Your task to perform on an android device: turn on translation in the chrome app Image 0: 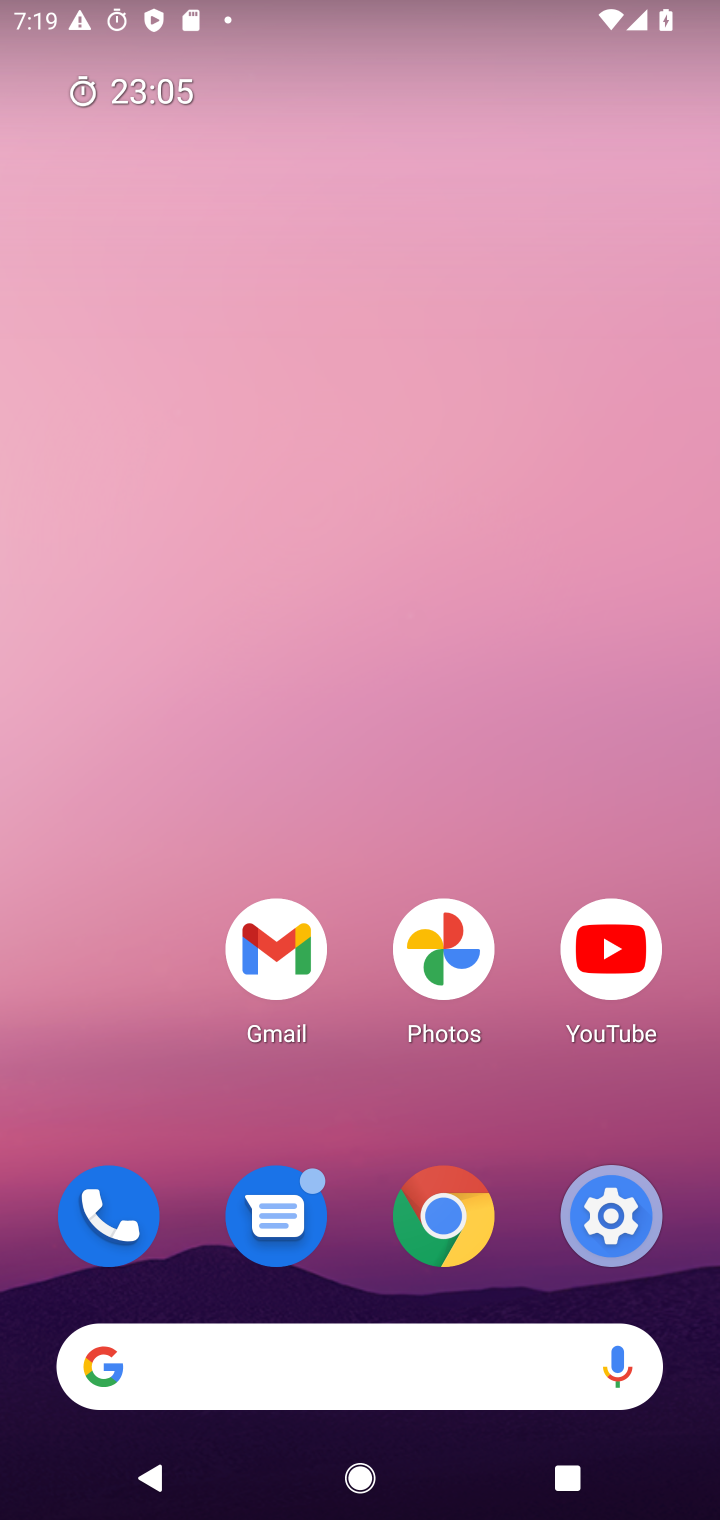
Step 0: drag from (515, 1253) to (519, 64)
Your task to perform on an android device: turn on translation in the chrome app Image 1: 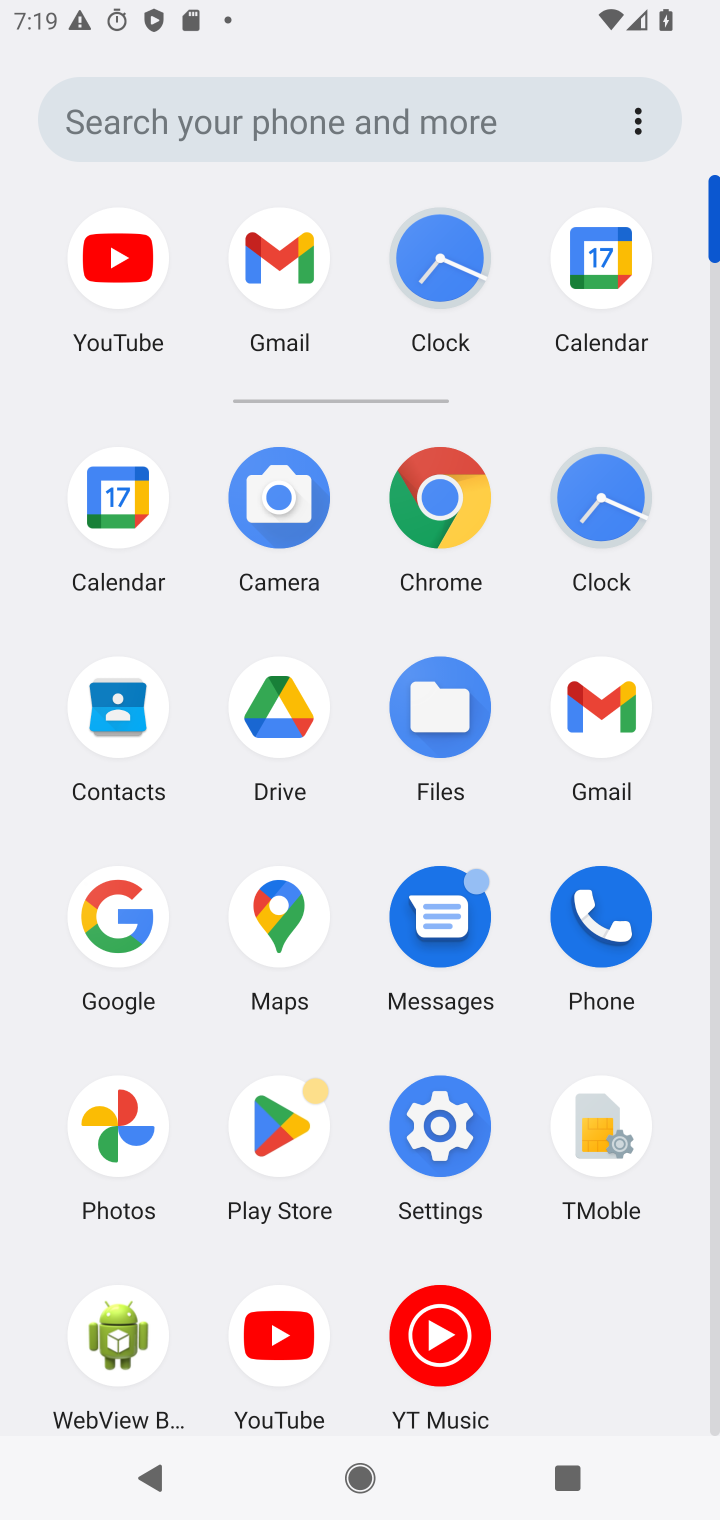
Step 1: click (457, 501)
Your task to perform on an android device: turn on translation in the chrome app Image 2: 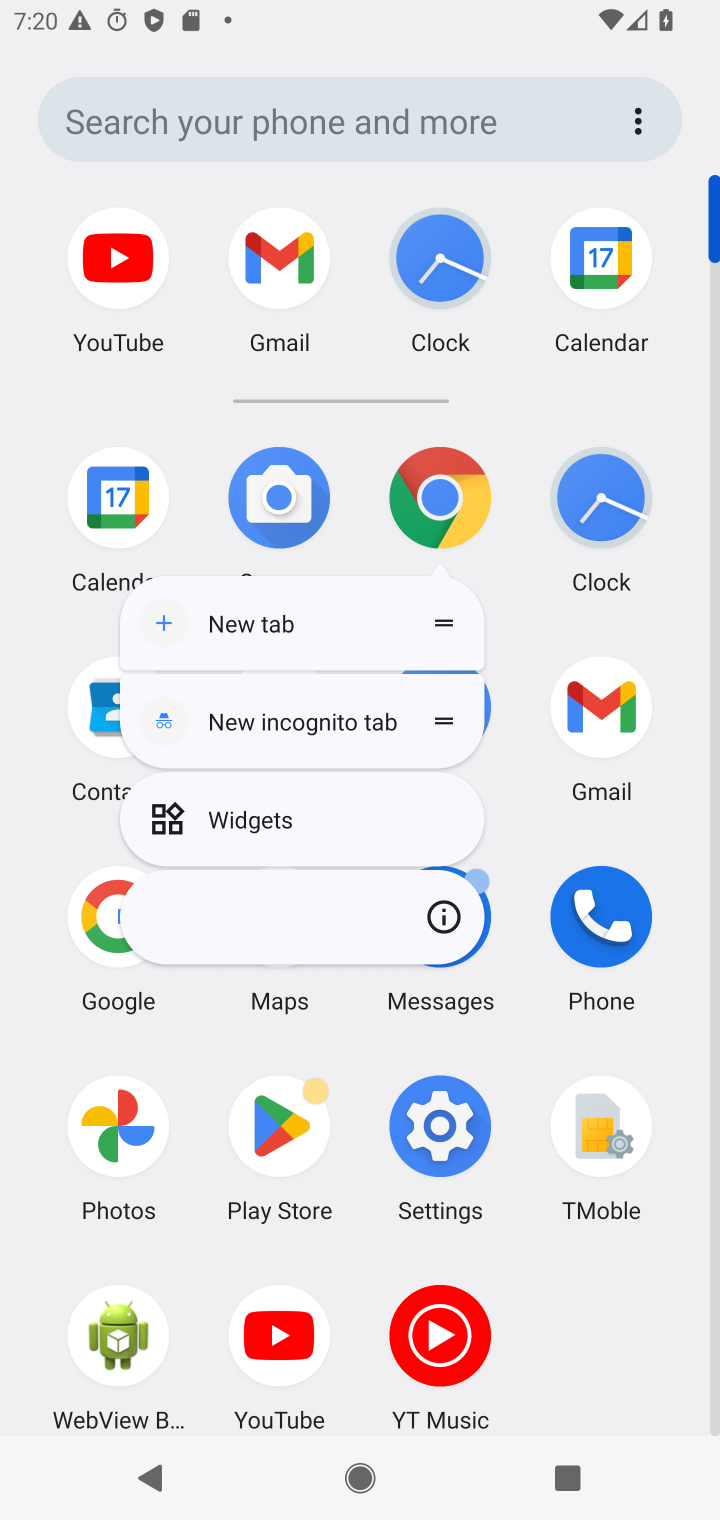
Step 2: click (439, 494)
Your task to perform on an android device: turn on translation in the chrome app Image 3: 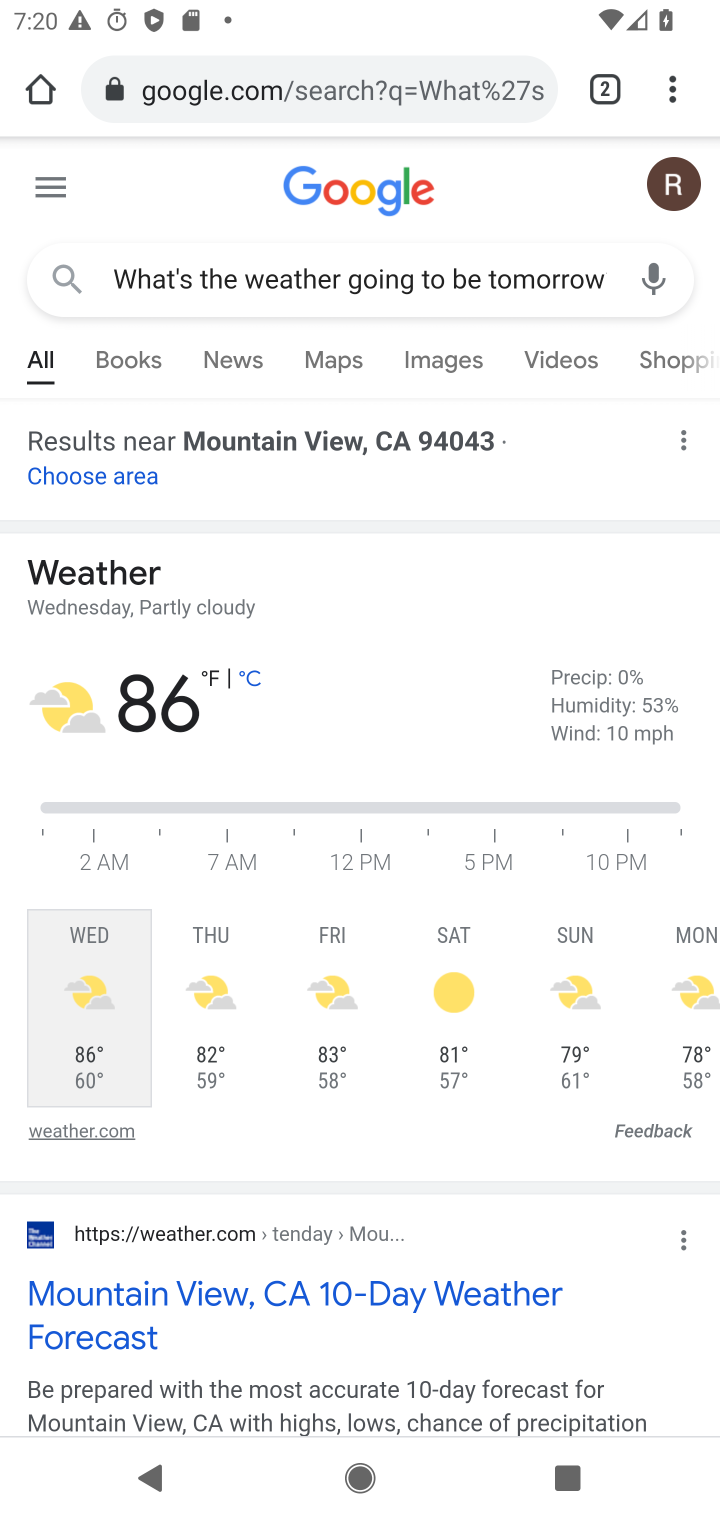
Step 3: drag from (667, 85) to (428, 1234)
Your task to perform on an android device: turn on translation in the chrome app Image 4: 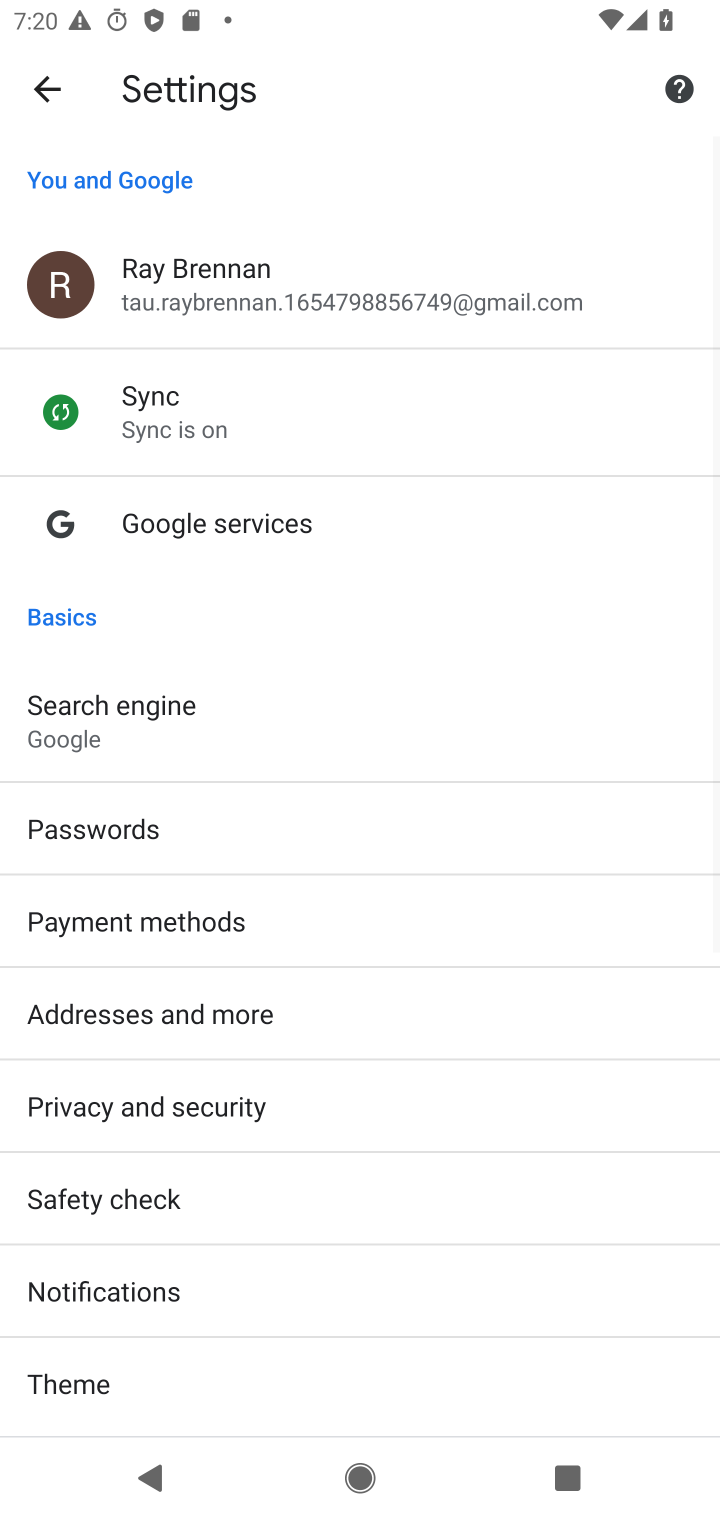
Step 4: drag from (195, 1201) to (339, 191)
Your task to perform on an android device: turn on translation in the chrome app Image 5: 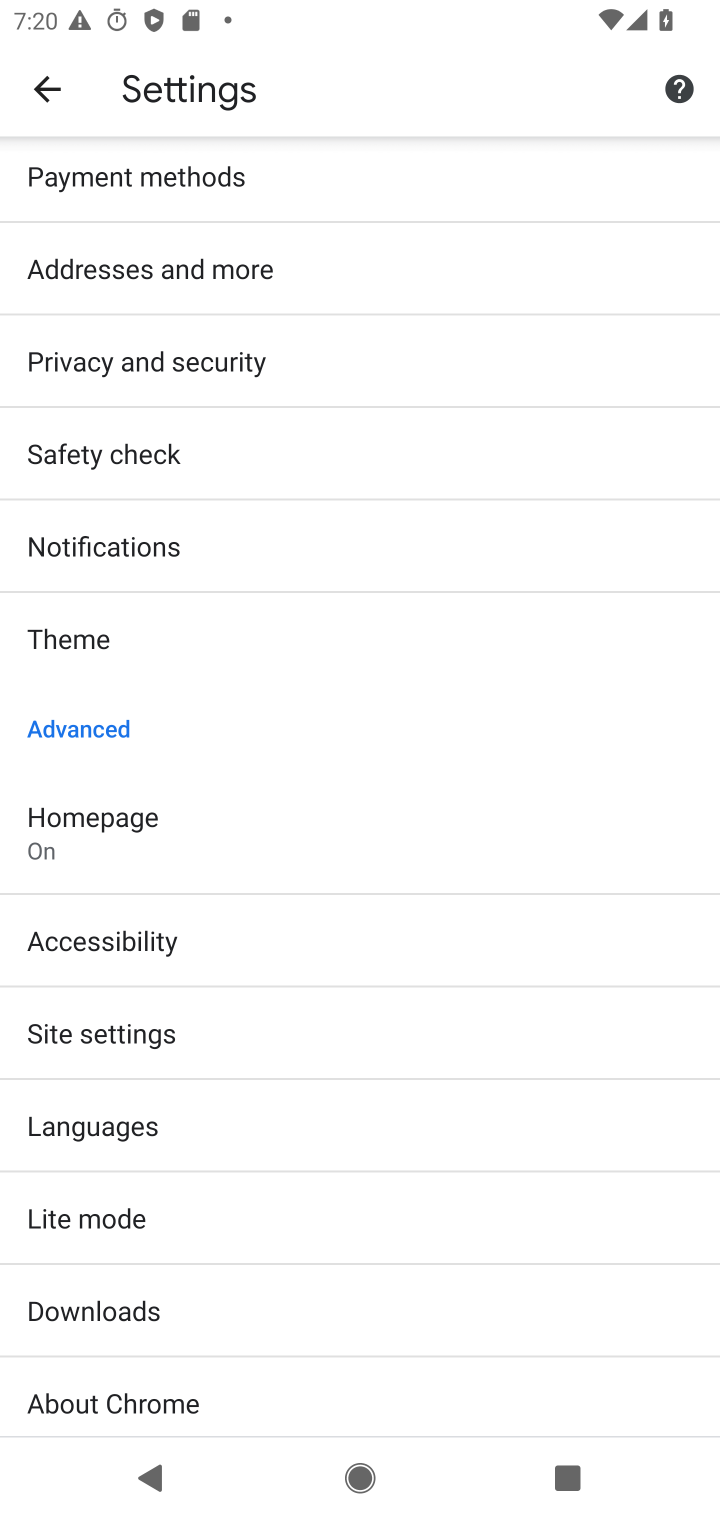
Step 5: click (133, 1123)
Your task to perform on an android device: turn on translation in the chrome app Image 6: 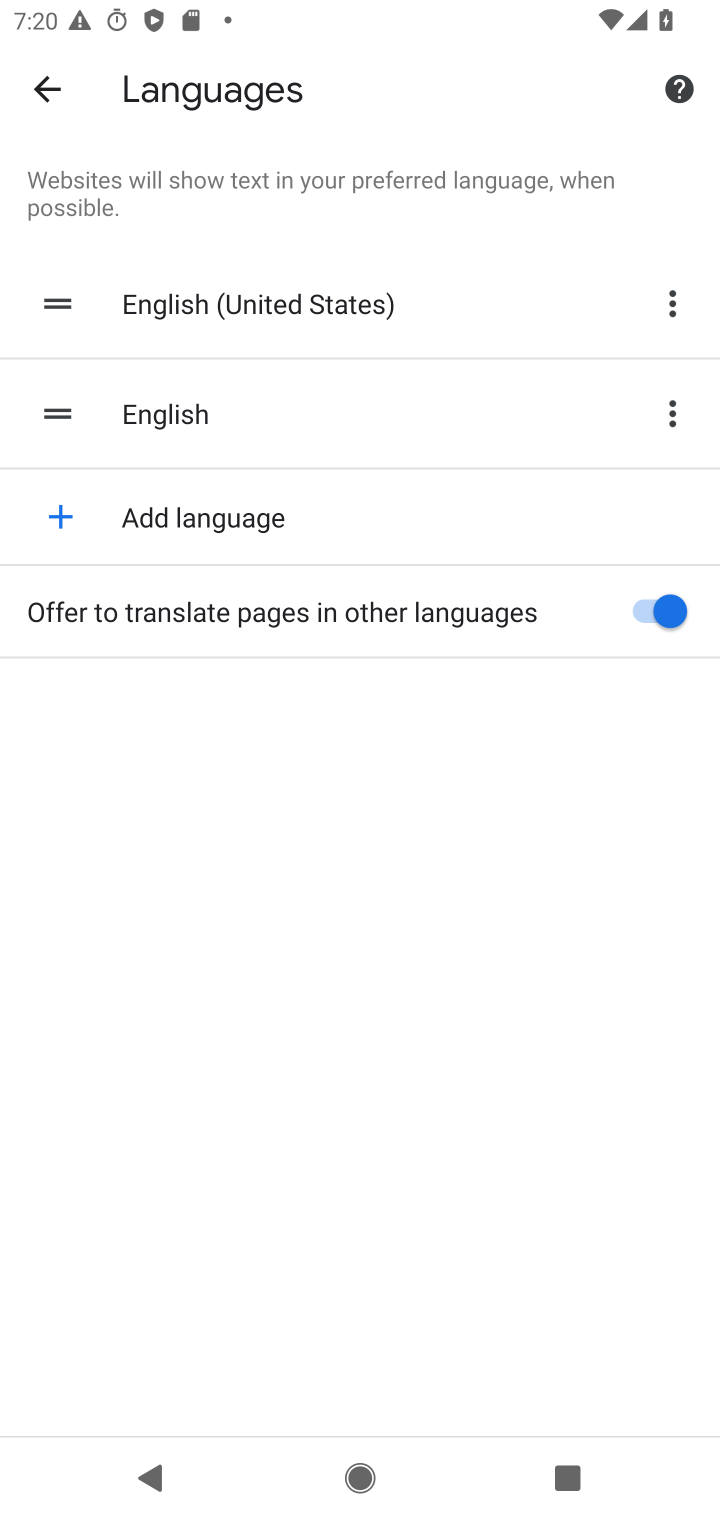
Step 6: task complete